Your task to perform on an android device: Open Yahoo.com Image 0: 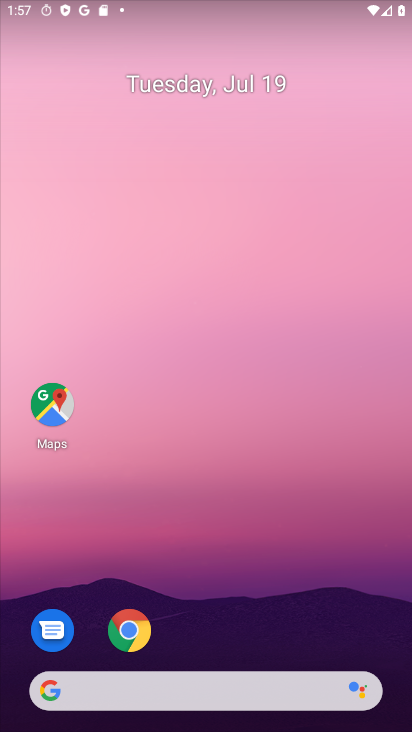
Step 0: click (138, 618)
Your task to perform on an android device: Open Yahoo.com Image 1: 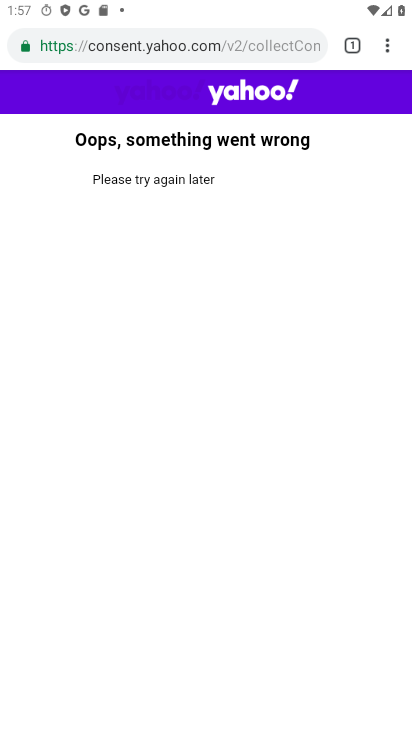
Step 1: task complete